Your task to perform on an android device: Open Wikipedia Image 0: 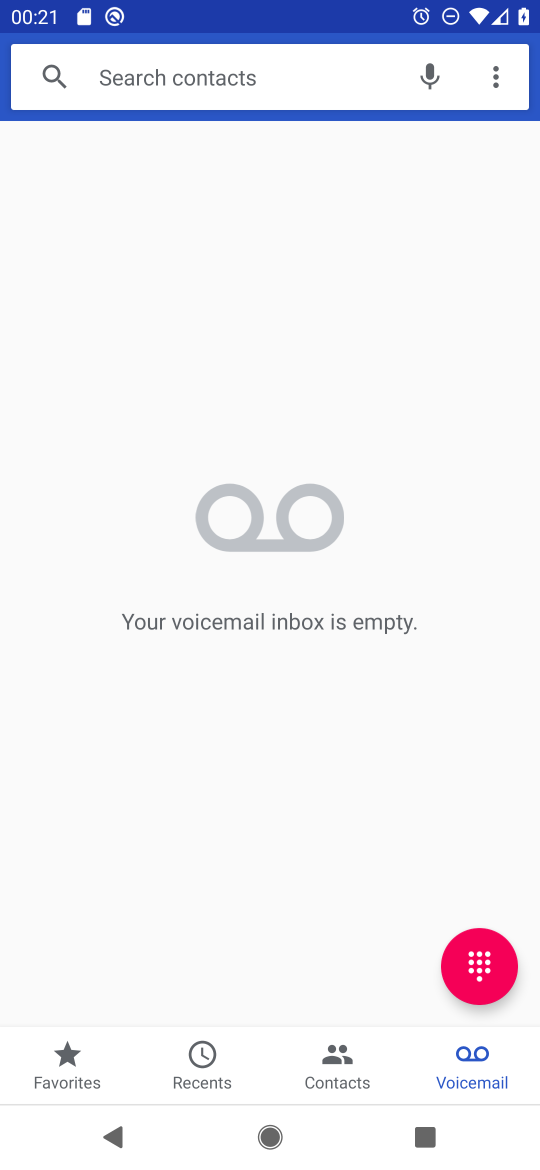
Step 0: press home button
Your task to perform on an android device: Open Wikipedia Image 1: 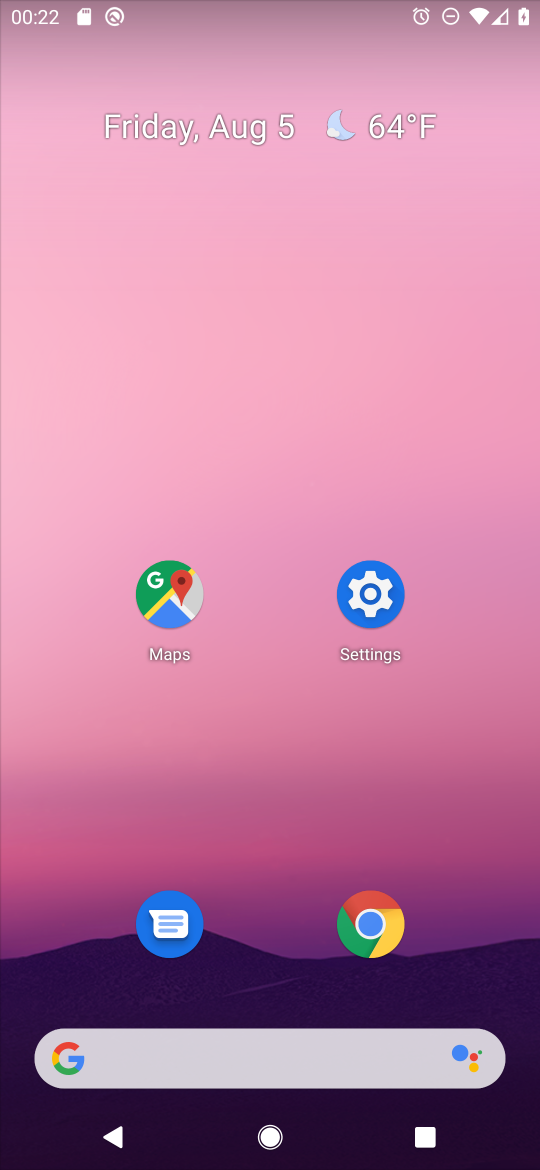
Step 1: click (375, 929)
Your task to perform on an android device: Open Wikipedia Image 2: 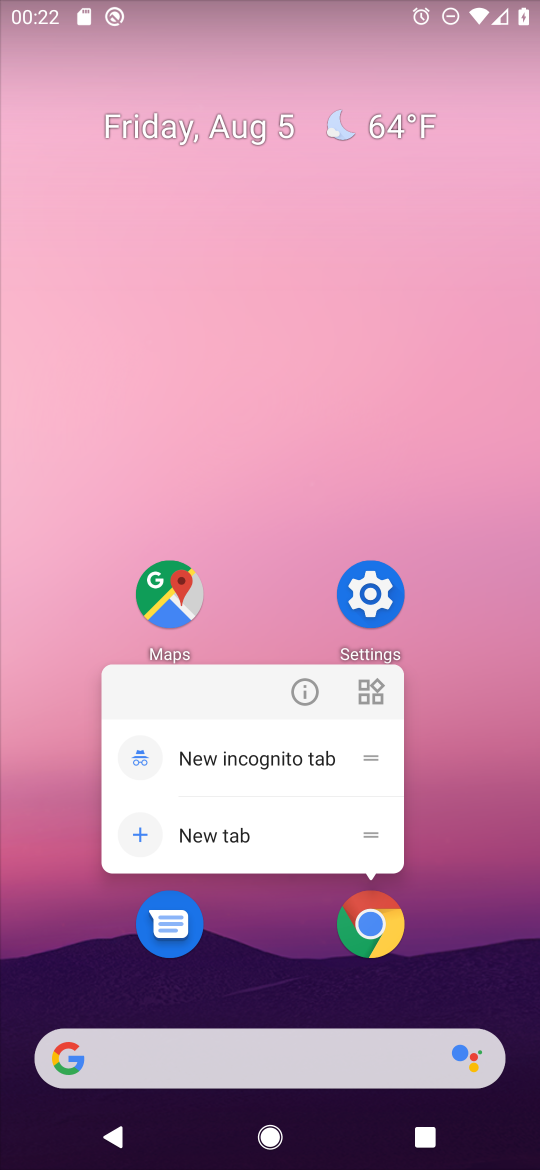
Step 2: click (375, 929)
Your task to perform on an android device: Open Wikipedia Image 3: 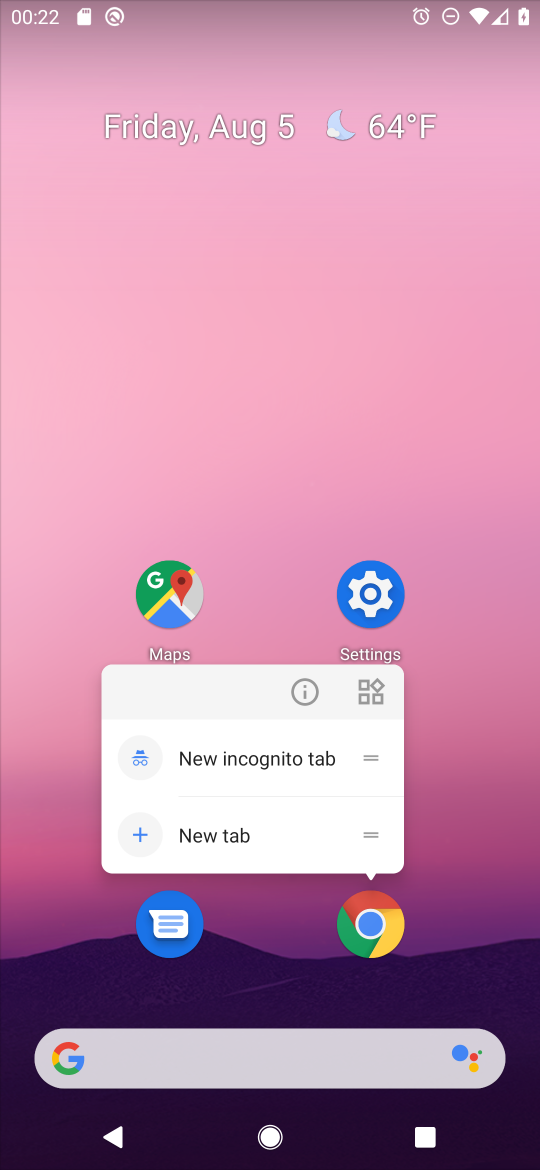
Step 3: click (375, 929)
Your task to perform on an android device: Open Wikipedia Image 4: 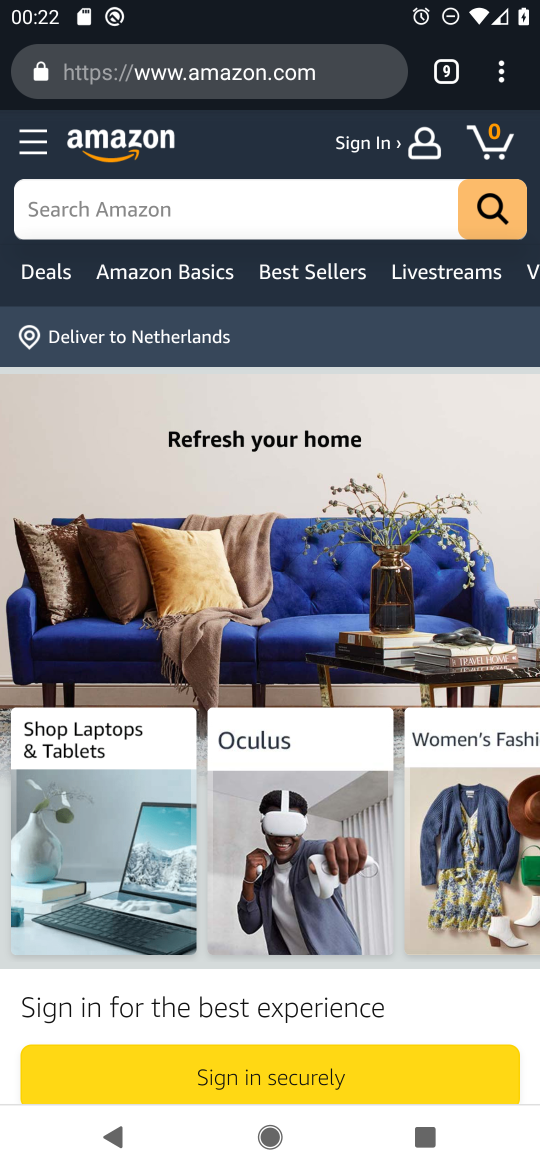
Step 4: drag from (498, 80) to (352, 140)
Your task to perform on an android device: Open Wikipedia Image 5: 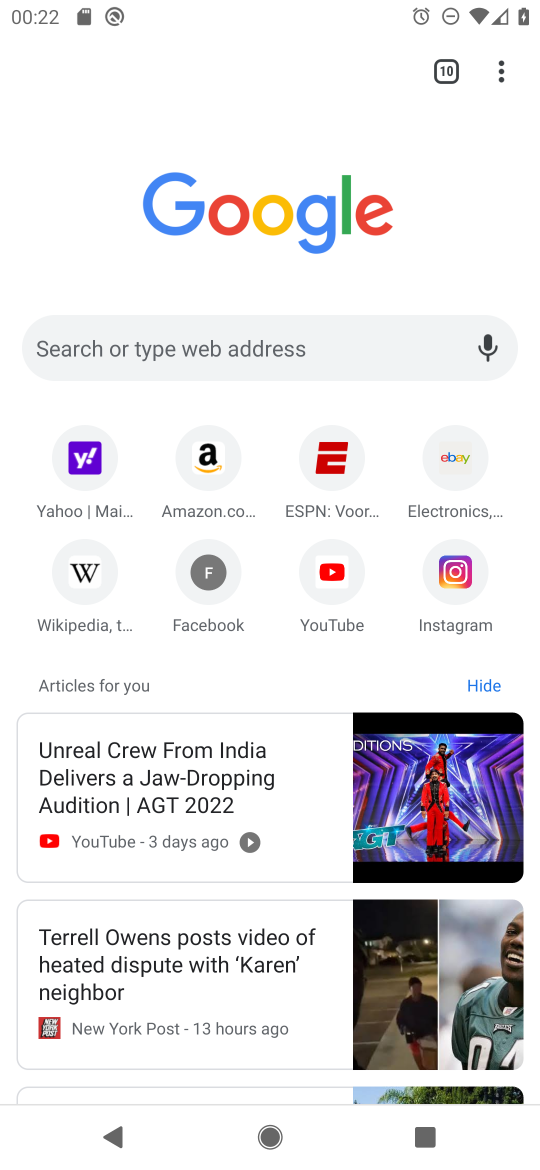
Step 5: click (101, 572)
Your task to perform on an android device: Open Wikipedia Image 6: 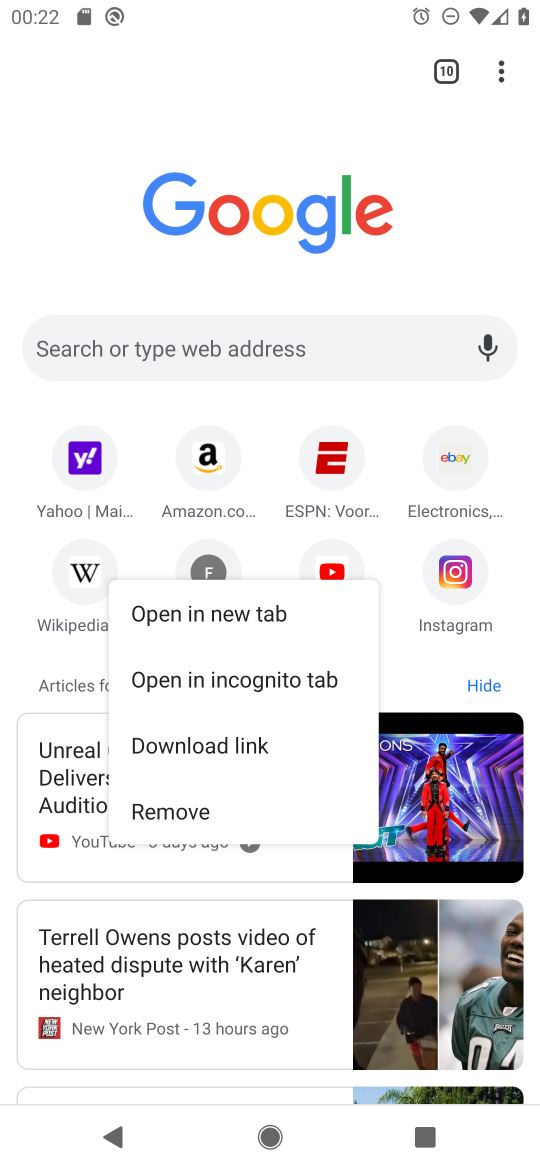
Step 6: click (85, 564)
Your task to perform on an android device: Open Wikipedia Image 7: 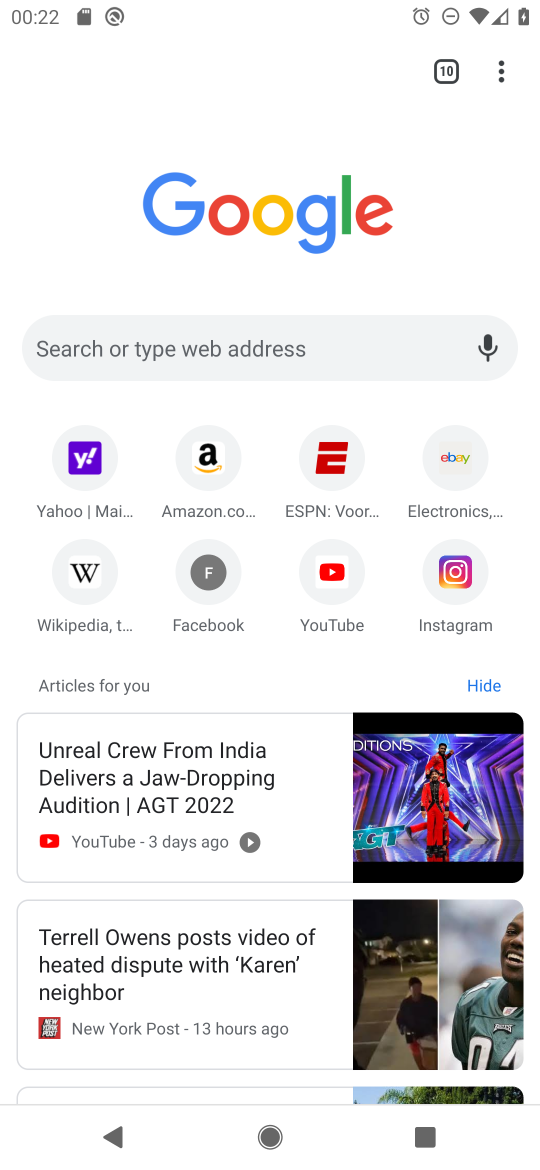
Step 7: click (85, 572)
Your task to perform on an android device: Open Wikipedia Image 8: 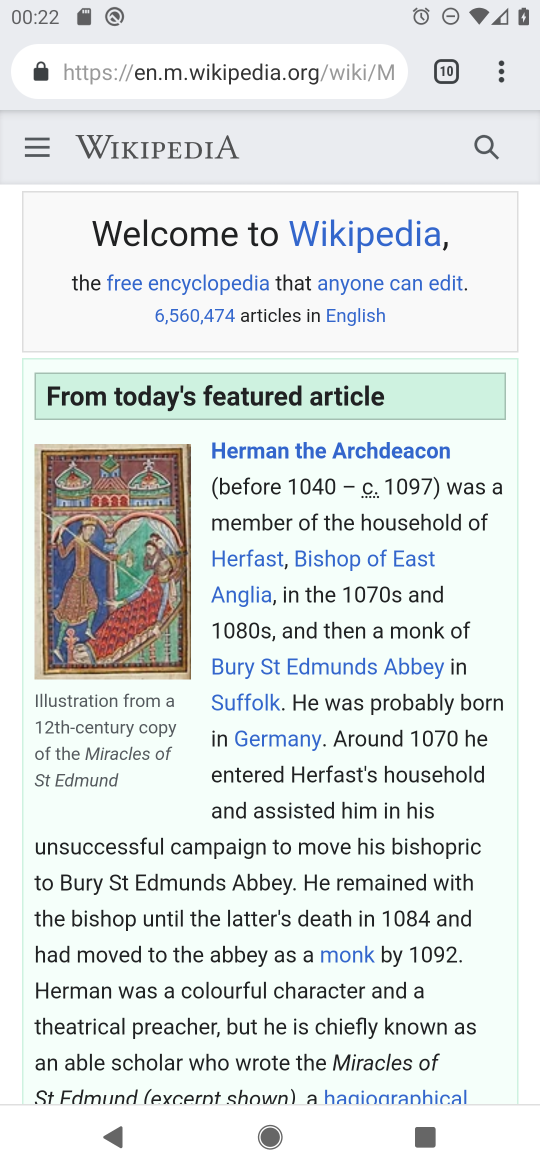
Step 8: task complete